Your task to perform on an android device: move an email to a new category in the gmail app Image 0: 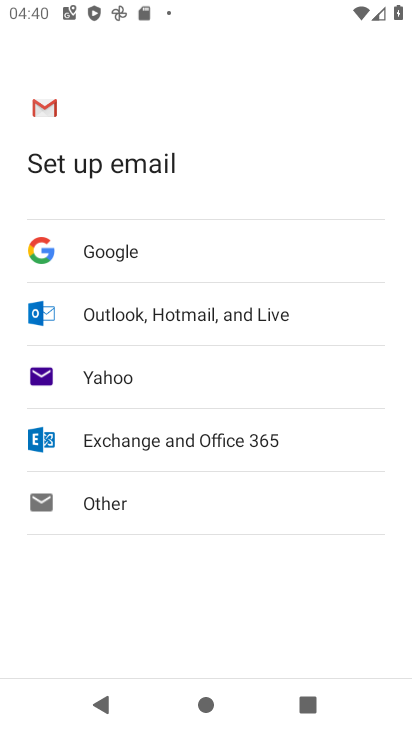
Step 0: task complete